Your task to perform on an android device: Is it going to rain this weekend? Image 0: 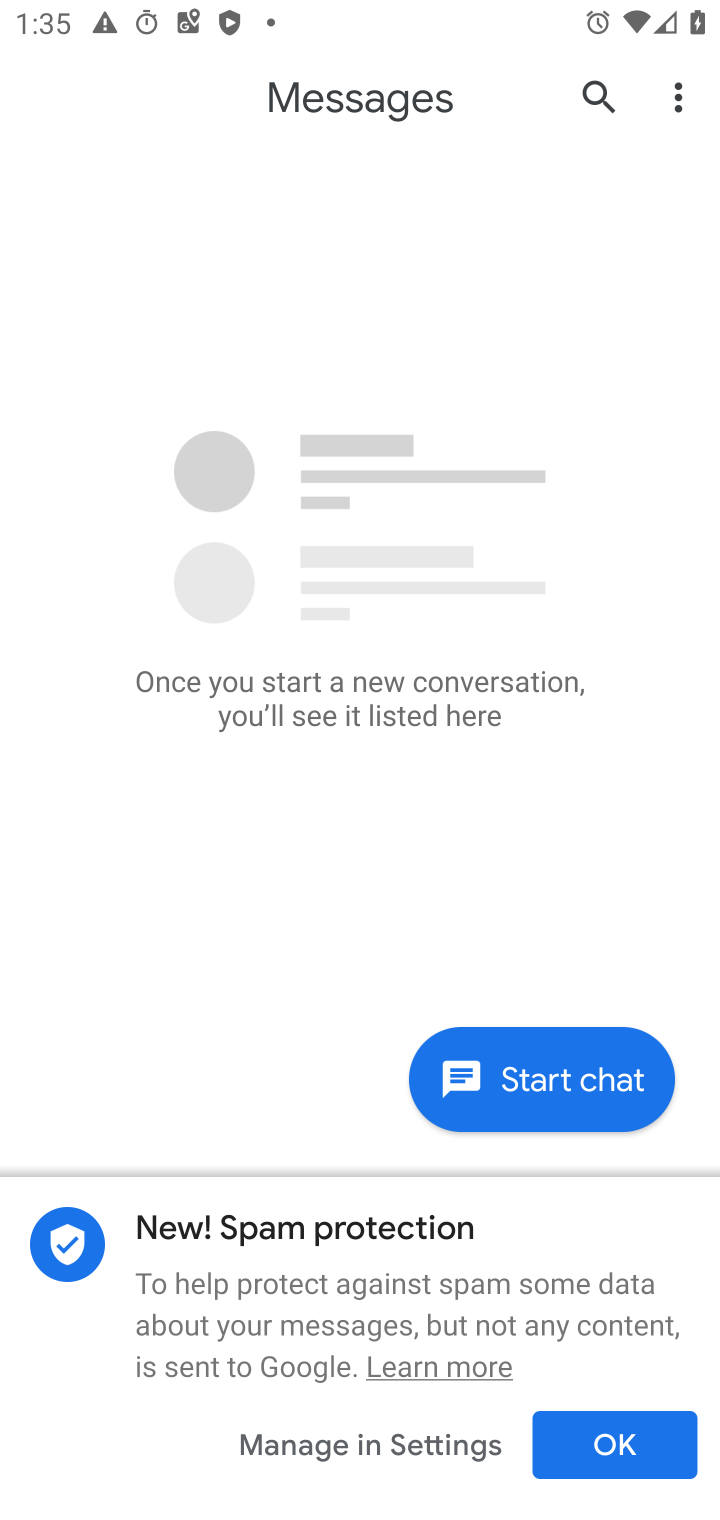
Step 0: press home button
Your task to perform on an android device: Is it going to rain this weekend? Image 1: 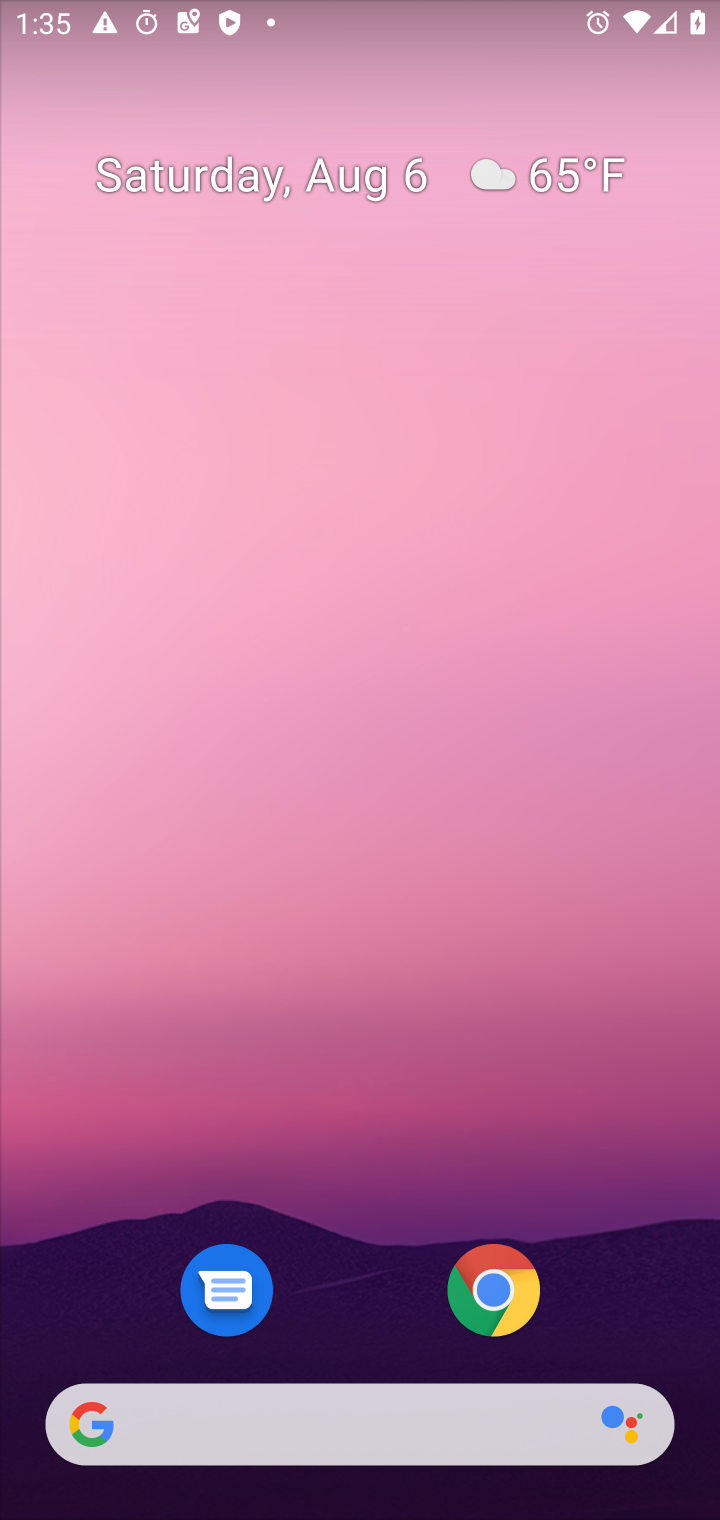
Step 1: click (573, 170)
Your task to perform on an android device: Is it going to rain this weekend? Image 2: 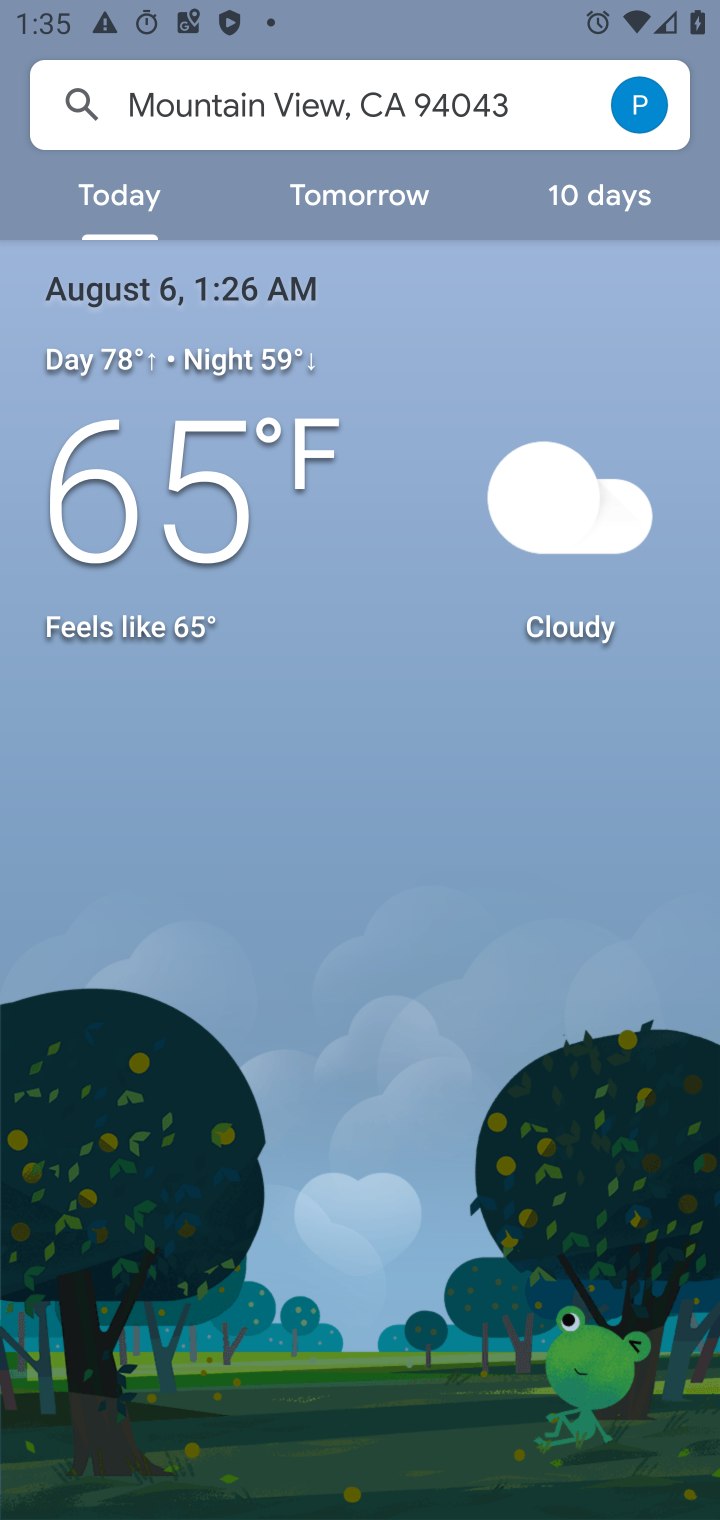
Step 2: click (559, 184)
Your task to perform on an android device: Is it going to rain this weekend? Image 3: 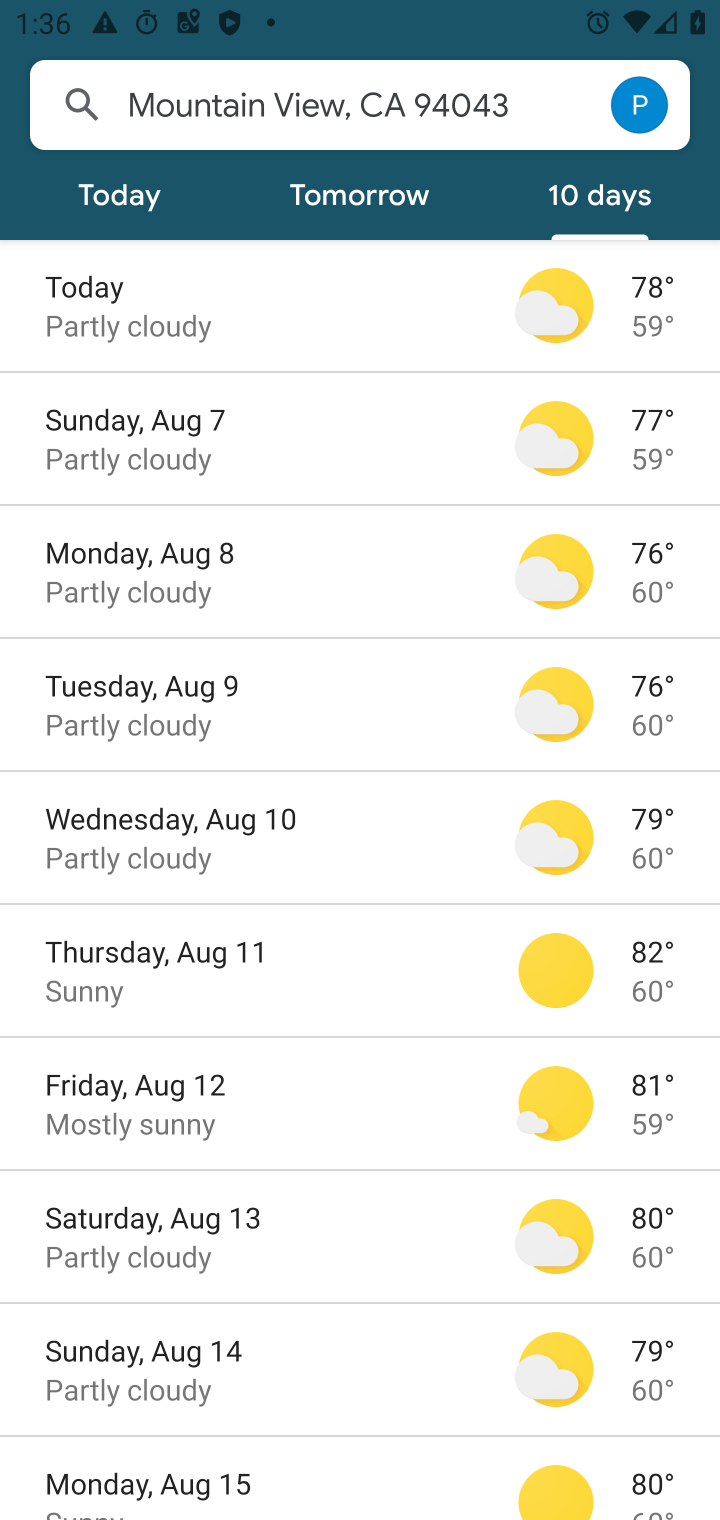
Step 3: click (186, 451)
Your task to perform on an android device: Is it going to rain this weekend? Image 4: 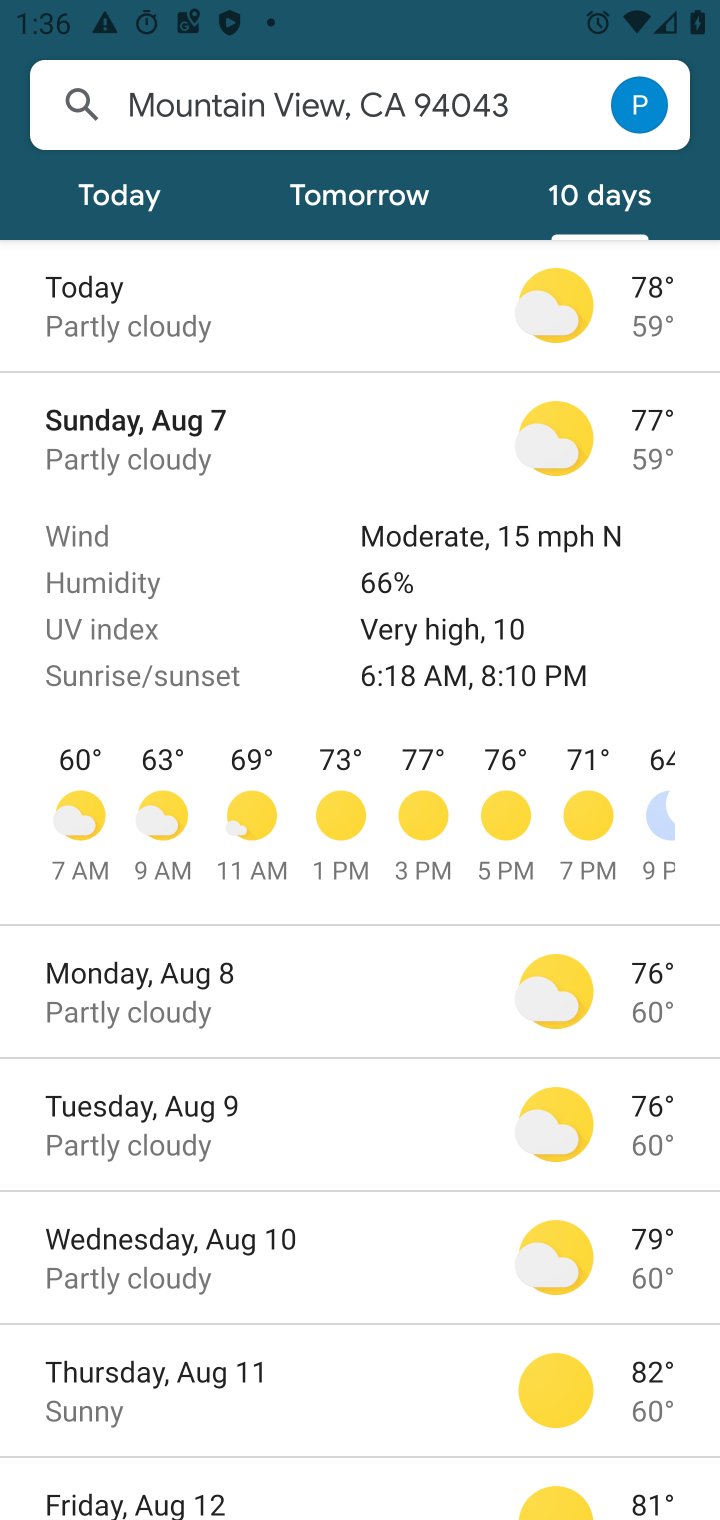
Step 4: task complete